Your task to perform on an android device: Go to Google Image 0: 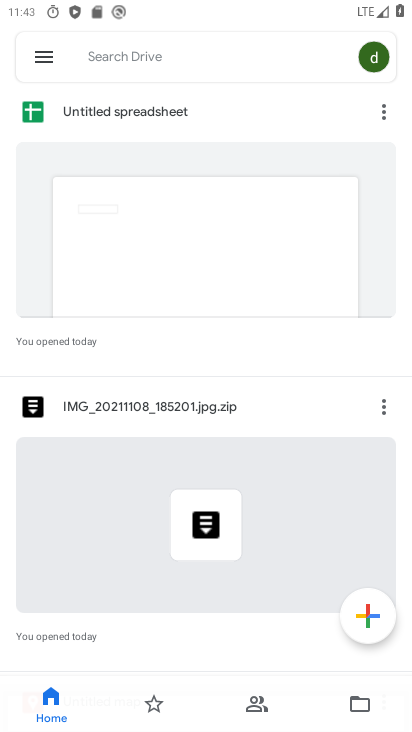
Step 0: press home button
Your task to perform on an android device: Go to Google Image 1: 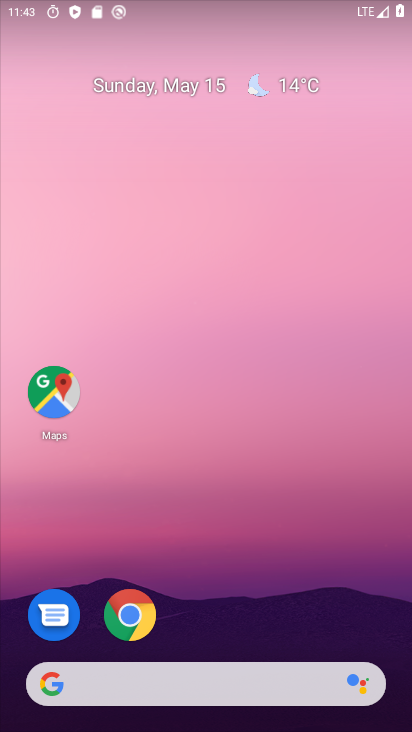
Step 1: drag from (346, 609) to (406, 124)
Your task to perform on an android device: Go to Google Image 2: 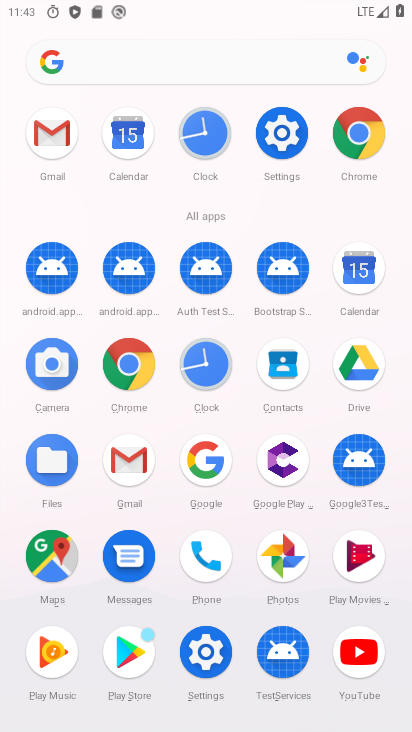
Step 2: click (199, 454)
Your task to perform on an android device: Go to Google Image 3: 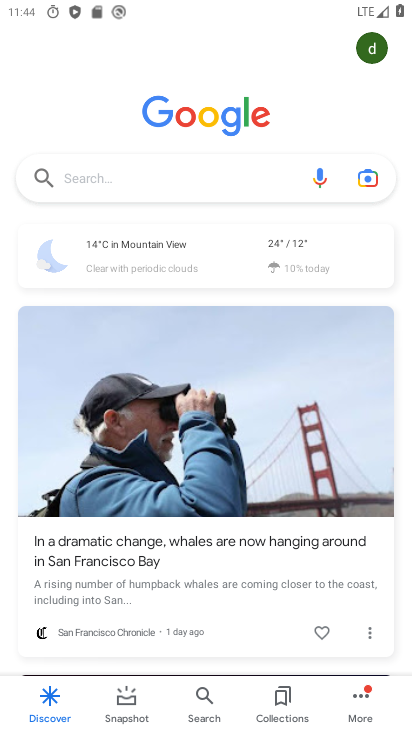
Step 3: task complete